Your task to perform on an android device: Open Amazon Image 0: 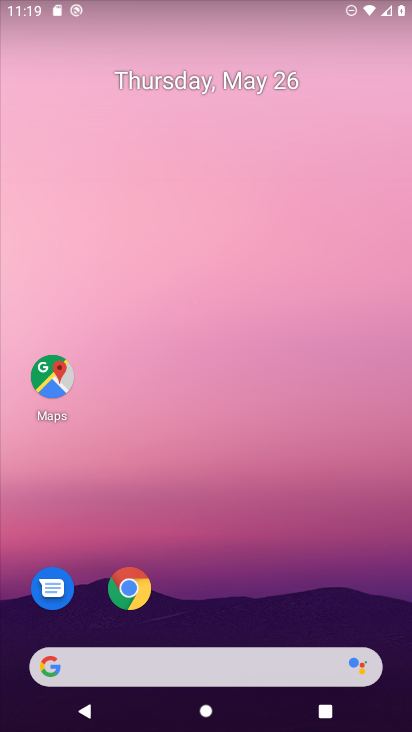
Step 0: click (130, 588)
Your task to perform on an android device: Open Amazon Image 1: 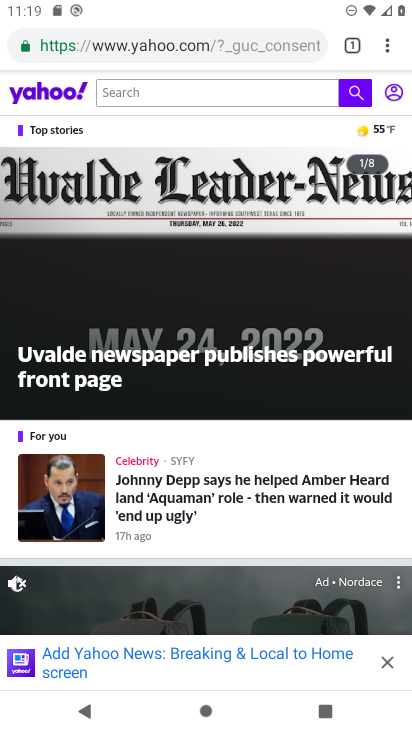
Step 1: click (293, 38)
Your task to perform on an android device: Open Amazon Image 2: 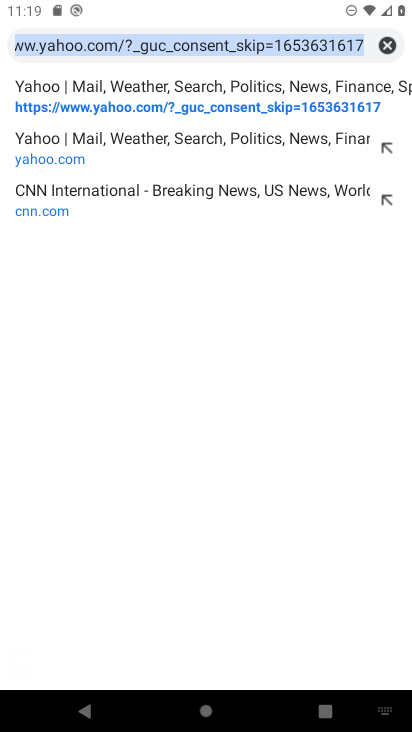
Step 2: click (387, 50)
Your task to perform on an android device: Open Amazon Image 3: 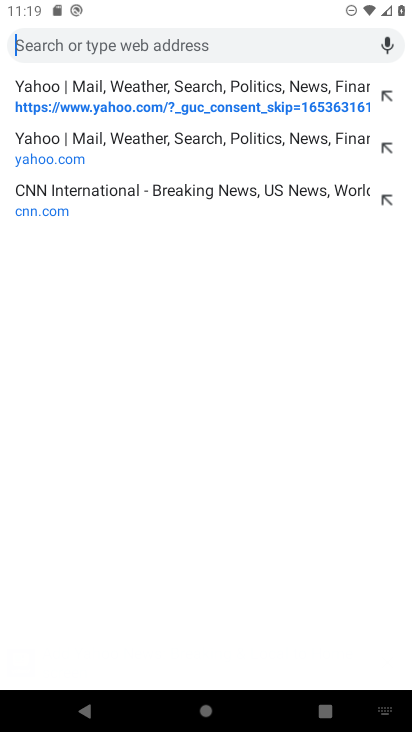
Step 3: type "amazon"
Your task to perform on an android device: Open Amazon Image 4: 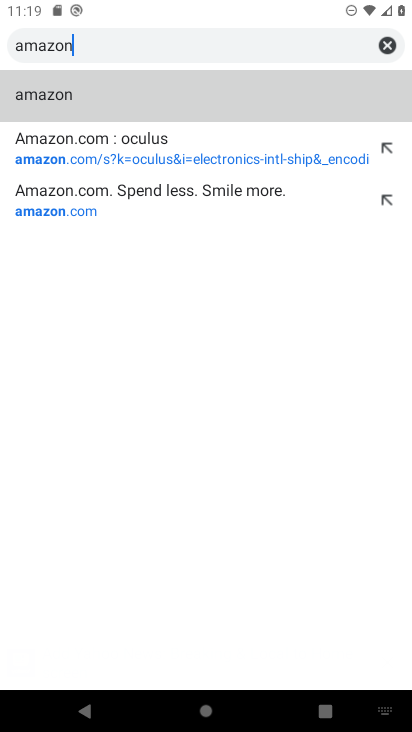
Step 4: click (100, 80)
Your task to perform on an android device: Open Amazon Image 5: 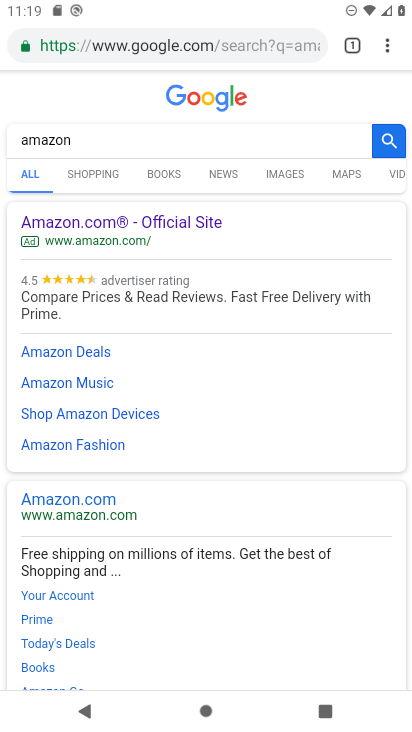
Step 5: click (72, 230)
Your task to perform on an android device: Open Amazon Image 6: 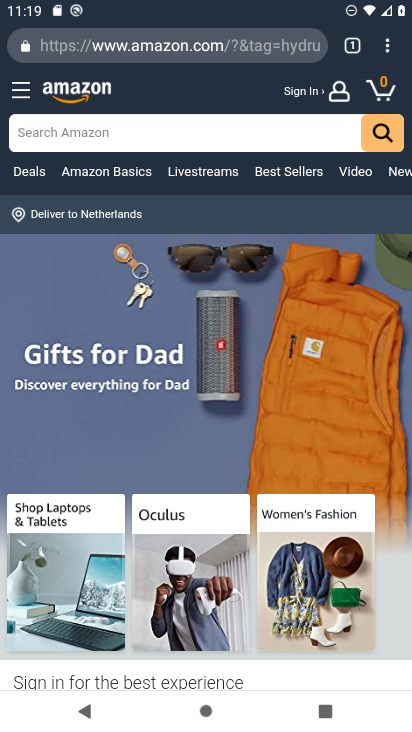
Step 6: task complete